Your task to perform on an android device: turn off sleep mode Image 0: 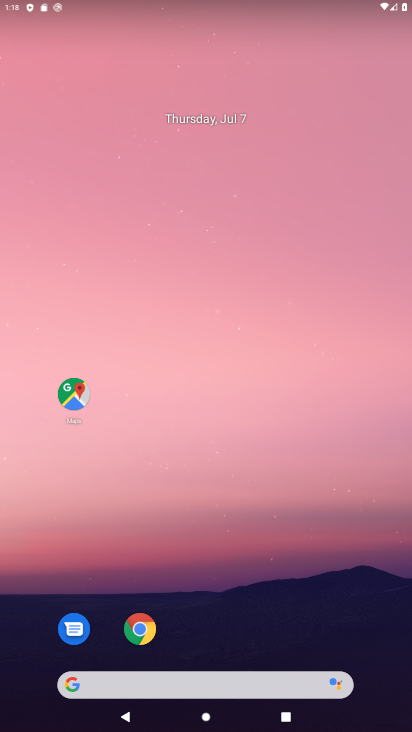
Step 0: drag from (212, 653) to (188, 86)
Your task to perform on an android device: turn off sleep mode Image 1: 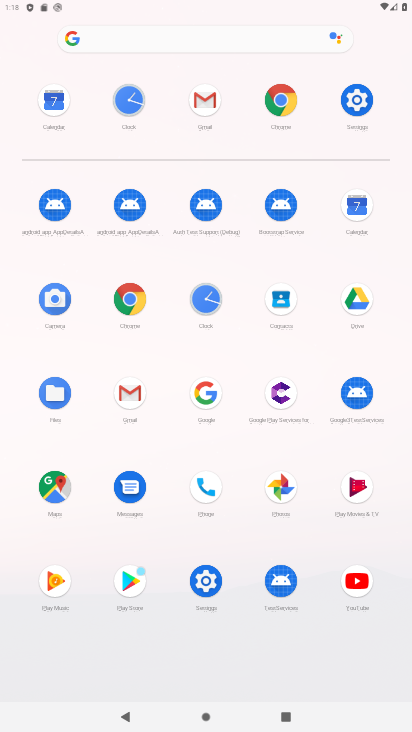
Step 1: click (367, 108)
Your task to perform on an android device: turn off sleep mode Image 2: 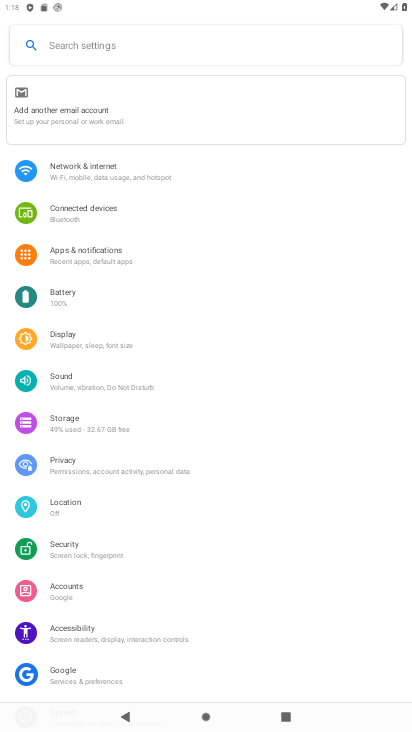
Step 2: click (198, 54)
Your task to perform on an android device: turn off sleep mode Image 3: 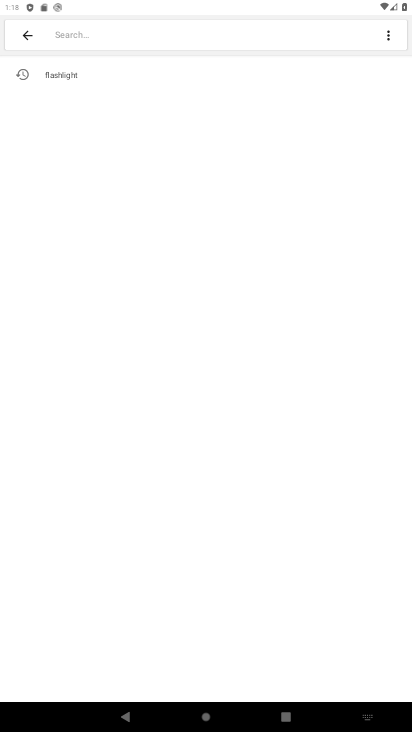
Step 3: type "sleep mode"
Your task to perform on an android device: turn off sleep mode Image 4: 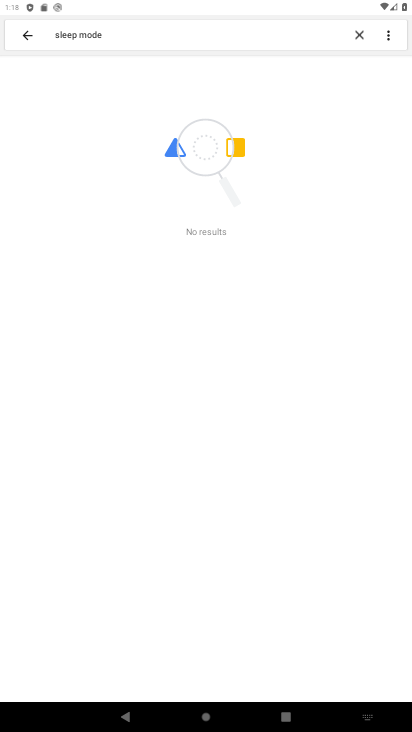
Step 4: task complete